Your task to perform on an android device: What's the weather going to be tomorrow? Image 0: 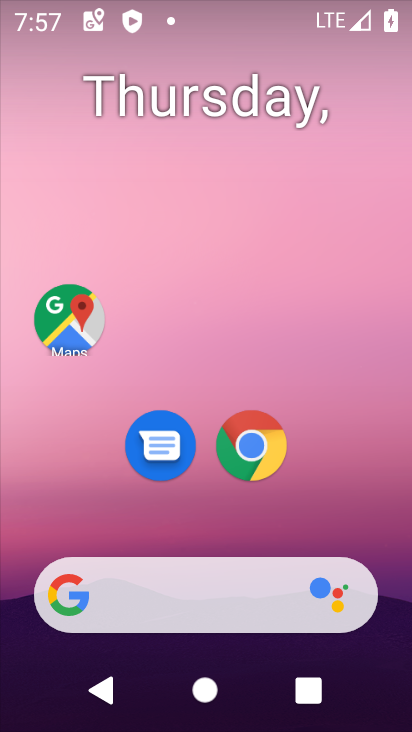
Step 0: drag from (236, 320) to (258, 32)
Your task to perform on an android device: What's the weather going to be tomorrow? Image 1: 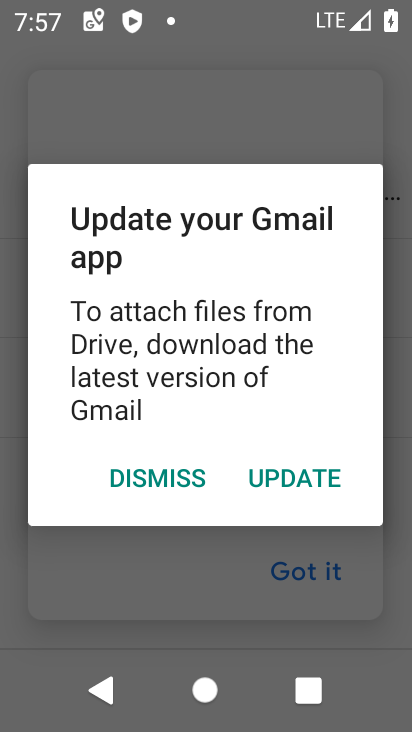
Step 1: press home button
Your task to perform on an android device: What's the weather going to be tomorrow? Image 2: 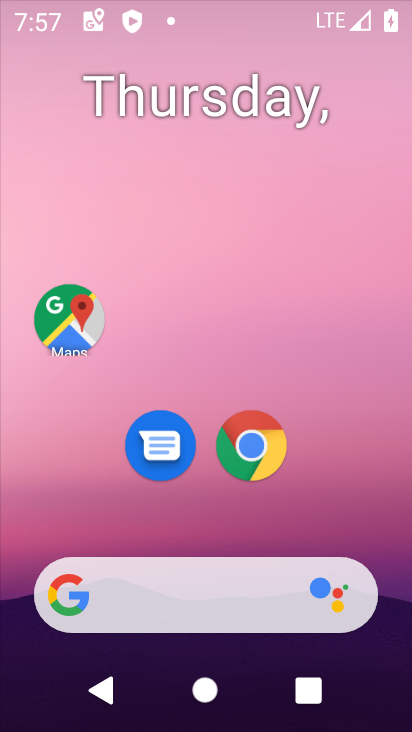
Step 2: drag from (234, 514) to (258, 21)
Your task to perform on an android device: What's the weather going to be tomorrow? Image 3: 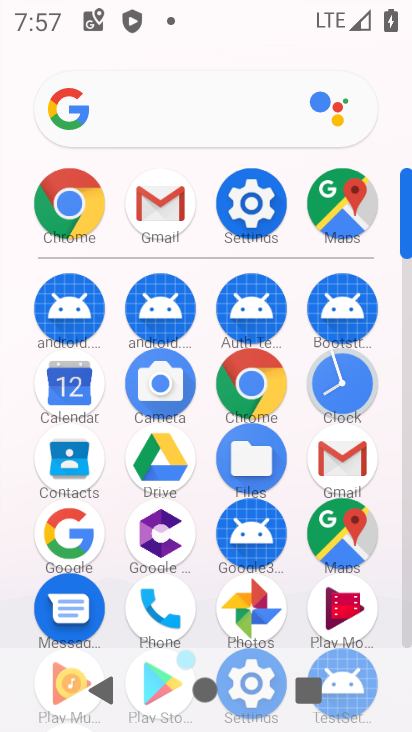
Step 3: click (217, 119)
Your task to perform on an android device: What's the weather going to be tomorrow? Image 4: 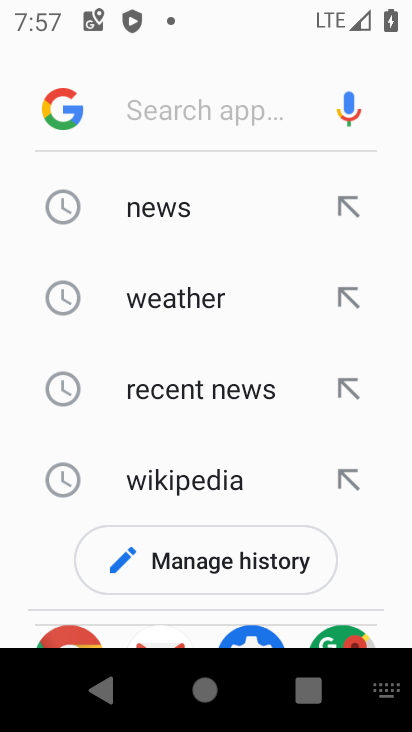
Step 4: type "weather tomorrow"
Your task to perform on an android device: What's the weather going to be tomorrow? Image 5: 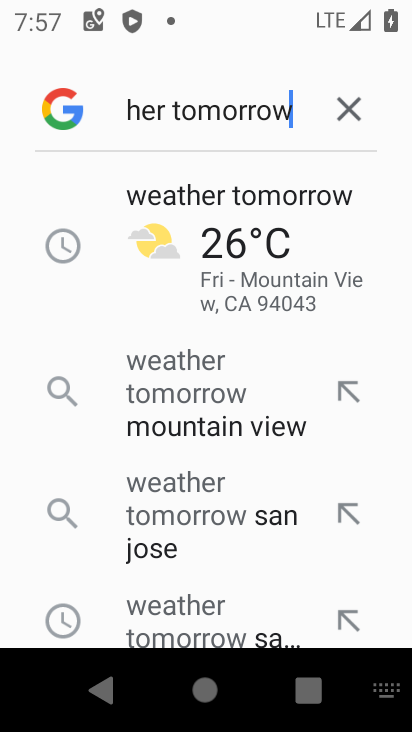
Step 5: click (321, 183)
Your task to perform on an android device: What's the weather going to be tomorrow? Image 6: 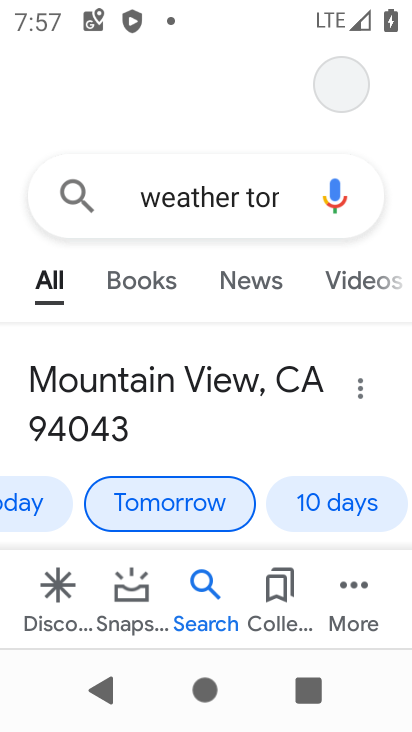
Step 6: task complete